Your task to perform on an android device: Go to Reddit.com Image 0: 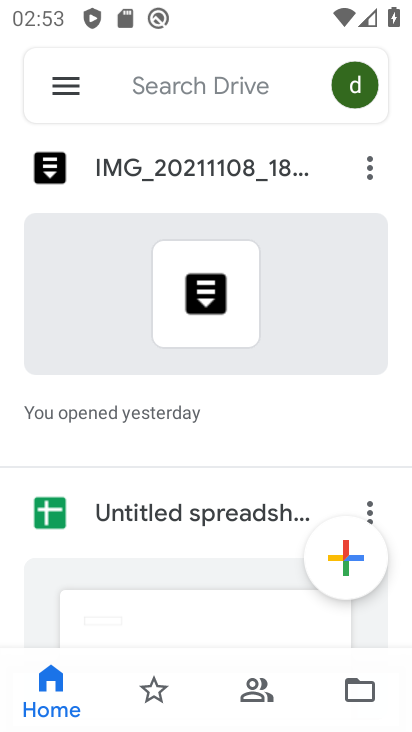
Step 0: press home button
Your task to perform on an android device: Go to Reddit.com Image 1: 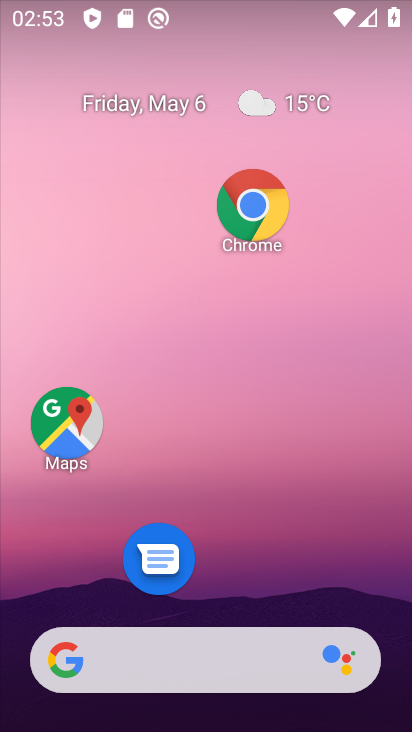
Step 1: click (271, 206)
Your task to perform on an android device: Go to Reddit.com Image 2: 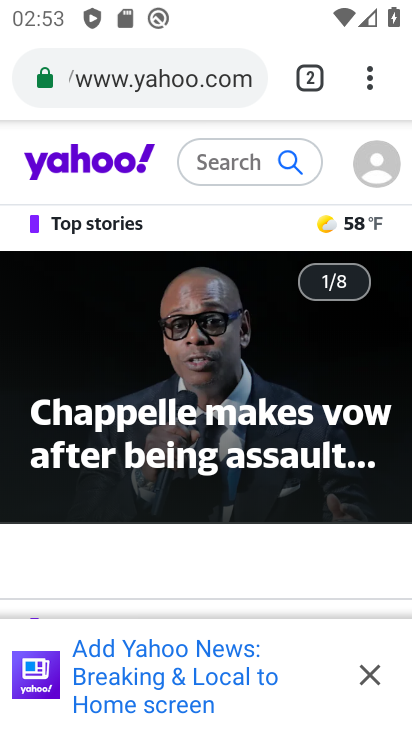
Step 2: click (205, 98)
Your task to perform on an android device: Go to Reddit.com Image 3: 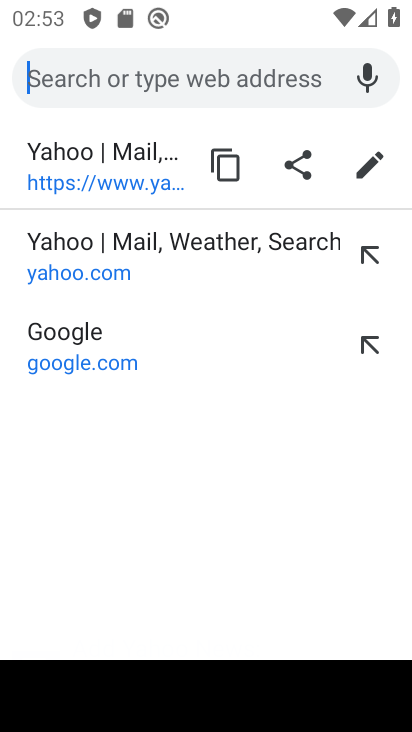
Step 3: type "reddit.com"
Your task to perform on an android device: Go to Reddit.com Image 4: 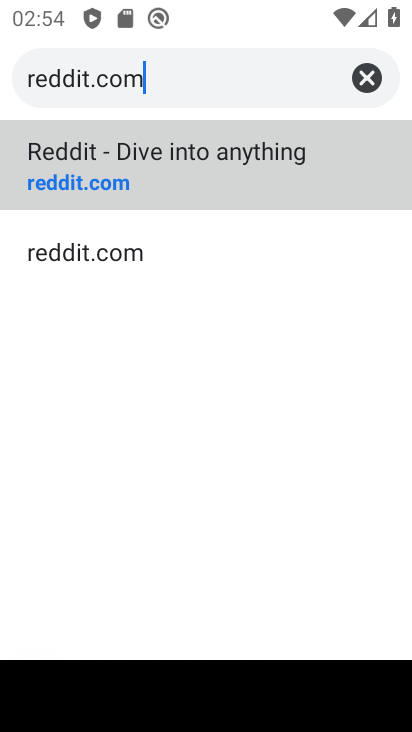
Step 4: click (175, 172)
Your task to perform on an android device: Go to Reddit.com Image 5: 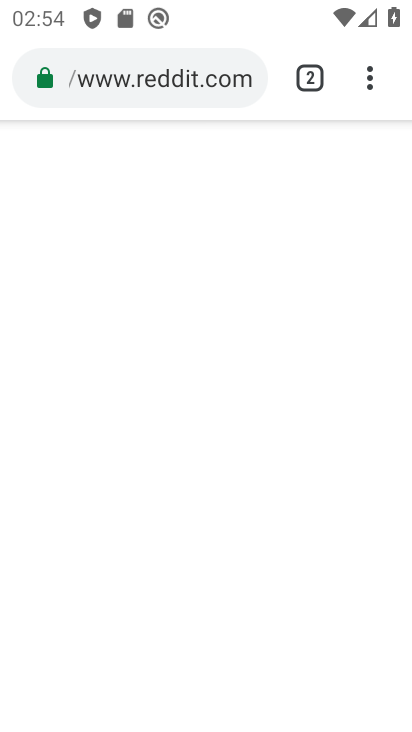
Step 5: task complete